Your task to perform on an android device: What is the news today? Image 0: 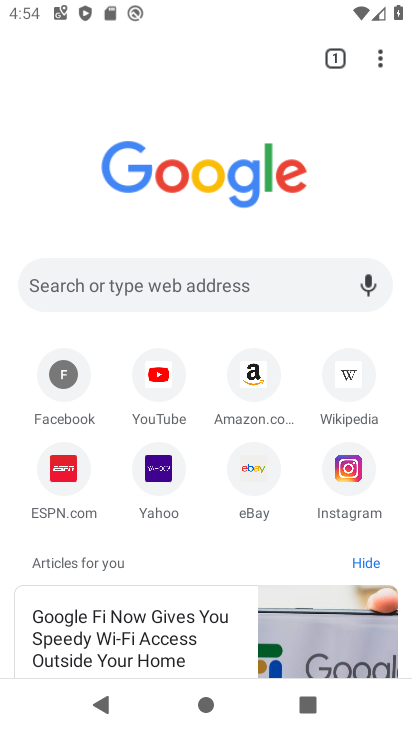
Step 0: click (145, 292)
Your task to perform on an android device: What is the news today? Image 1: 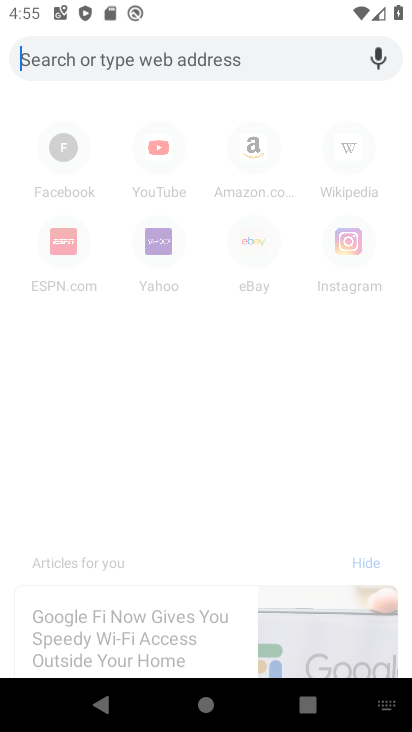
Step 1: type "what is news today?"
Your task to perform on an android device: What is the news today? Image 2: 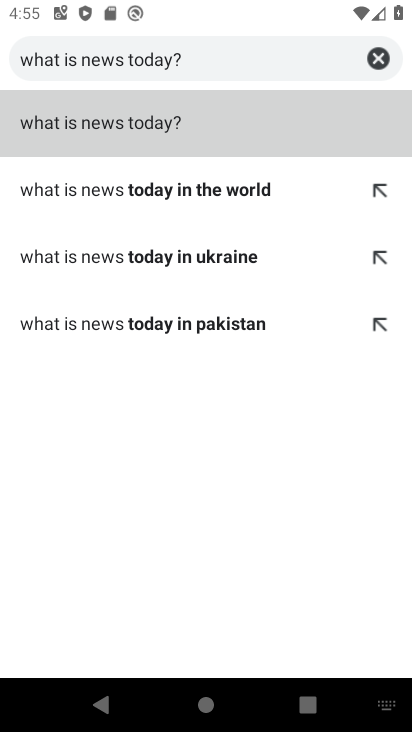
Step 2: click (171, 130)
Your task to perform on an android device: What is the news today? Image 3: 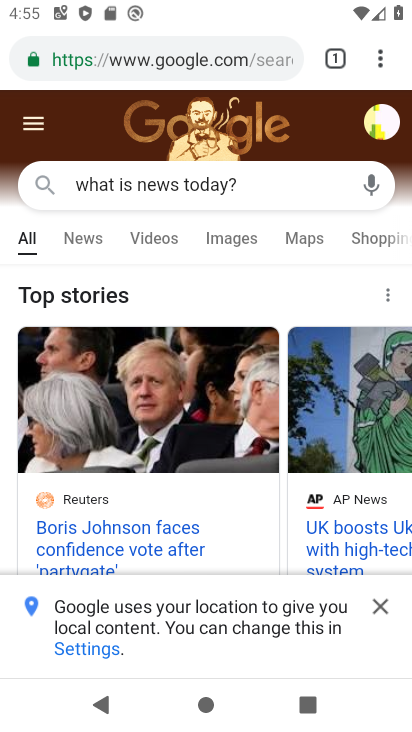
Step 3: task complete